Your task to perform on an android device: open the mobile data screen to see how much data has been used Image 0: 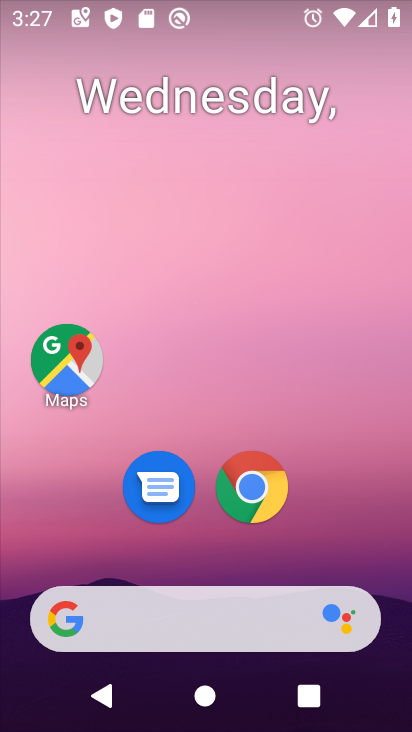
Step 0: drag from (366, 545) to (366, 205)
Your task to perform on an android device: open the mobile data screen to see how much data has been used Image 1: 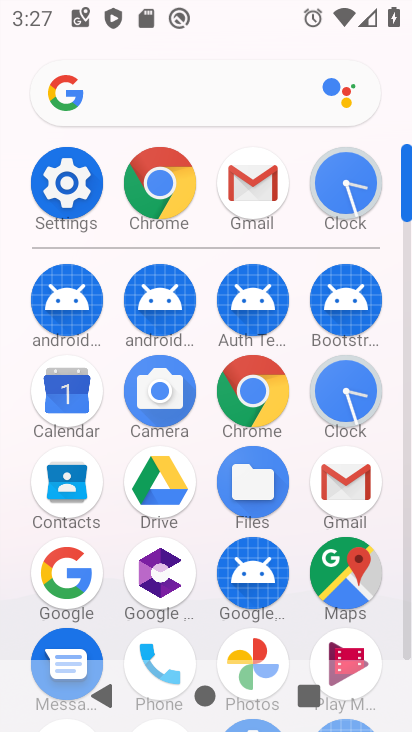
Step 1: click (76, 200)
Your task to perform on an android device: open the mobile data screen to see how much data has been used Image 2: 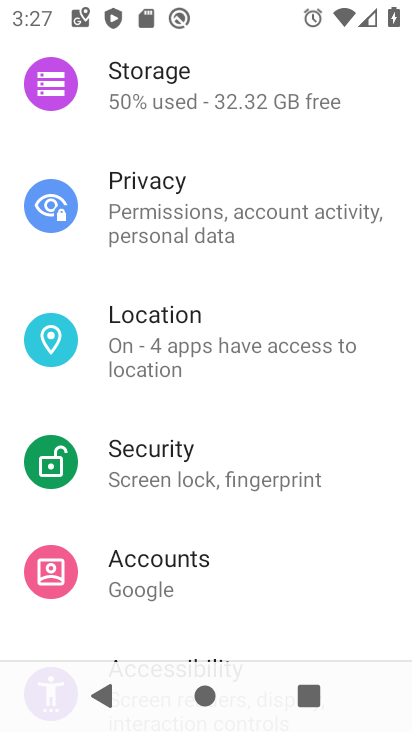
Step 2: drag from (377, 293) to (372, 369)
Your task to perform on an android device: open the mobile data screen to see how much data has been used Image 3: 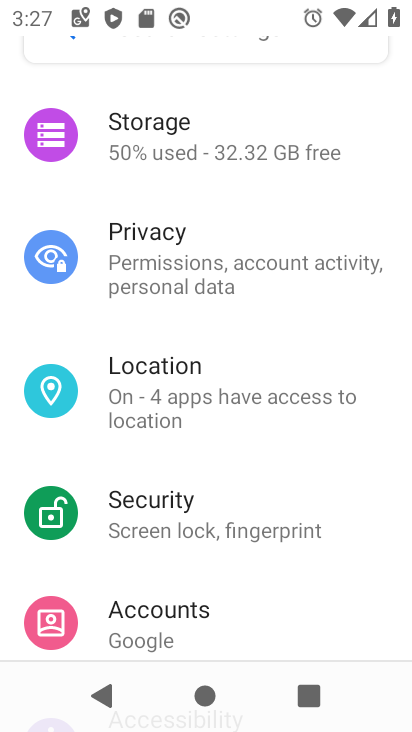
Step 3: drag from (367, 293) to (365, 368)
Your task to perform on an android device: open the mobile data screen to see how much data has been used Image 4: 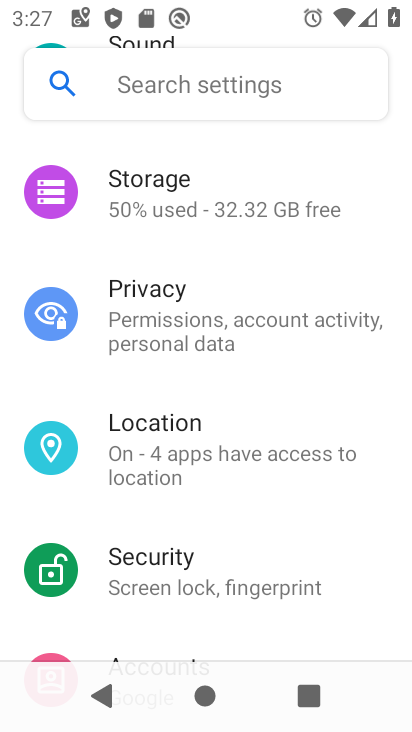
Step 4: drag from (365, 255) to (368, 347)
Your task to perform on an android device: open the mobile data screen to see how much data has been used Image 5: 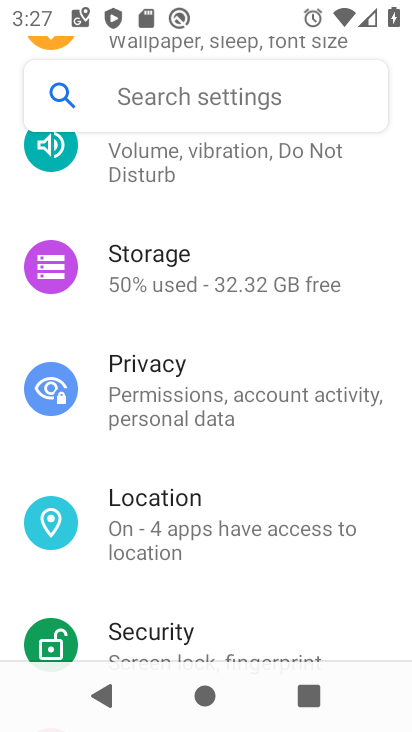
Step 5: drag from (367, 265) to (362, 345)
Your task to perform on an android device: open the mobile data screen to see how much data has been used Image 6: 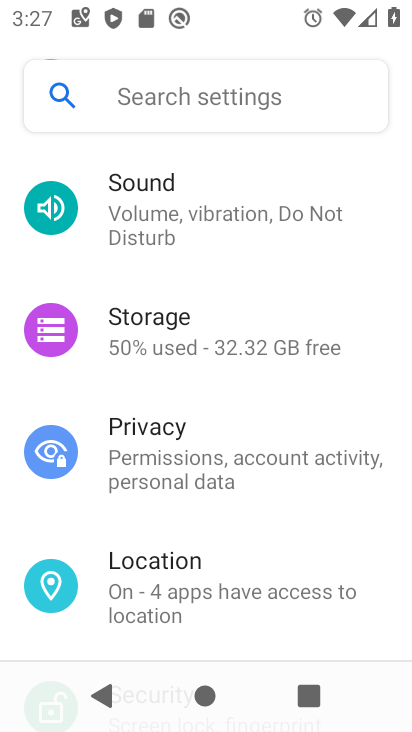
Step 6: drag from (362, 279) to (367, 360)
Your task to perform on an android device: open the mobile data screen to see how much data has been used Image 7: 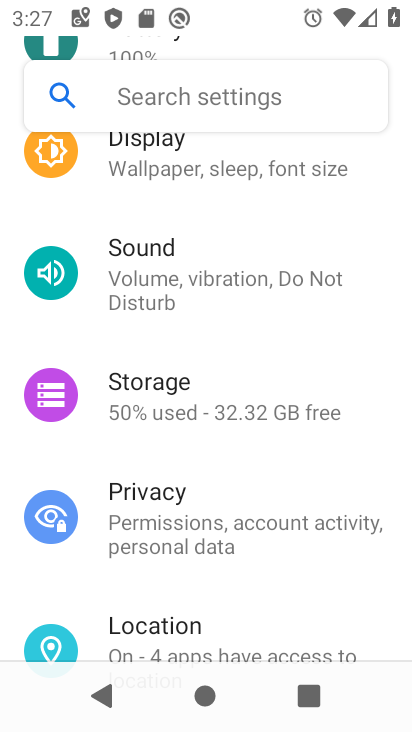
Step 7: drag from (362, 292) to (361, 366)
Your task to perform on an android device: open the mobile data screen to see how much data has been used Image 8: 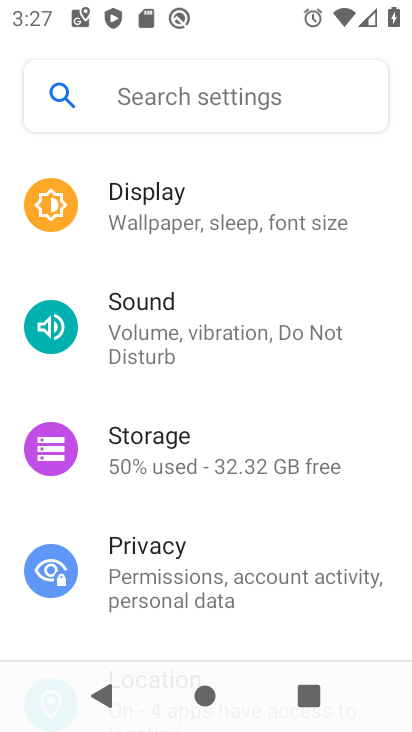
Step 8: drag from (364, 290) to (360, 370)
Your task to perform on an android device: open the mobile data screen to see how much data has been used Image 9: 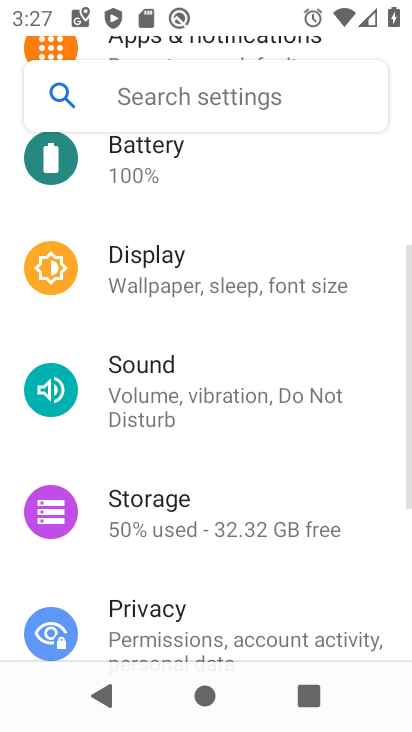
Step 9: drag from (358, 285) to (363, 377)
Your task to perform on an android device: open the mobile data screen to see how much data has been used Image 10: 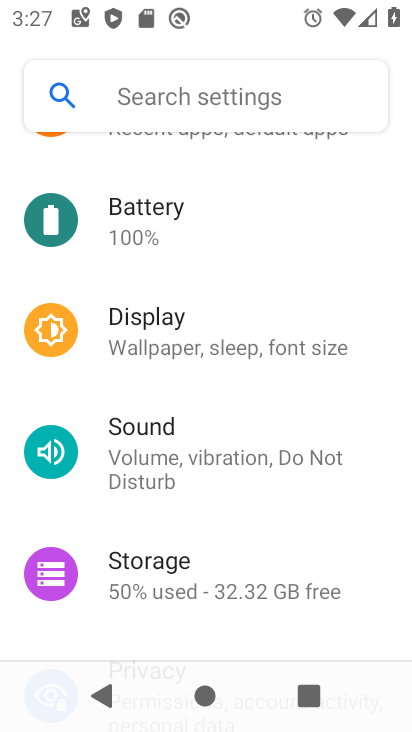
Step 10: drag from (372, 318) to (373, 404)
Your task to perform on an android device: open the mobile data screen to see how much data has been used Image 11: 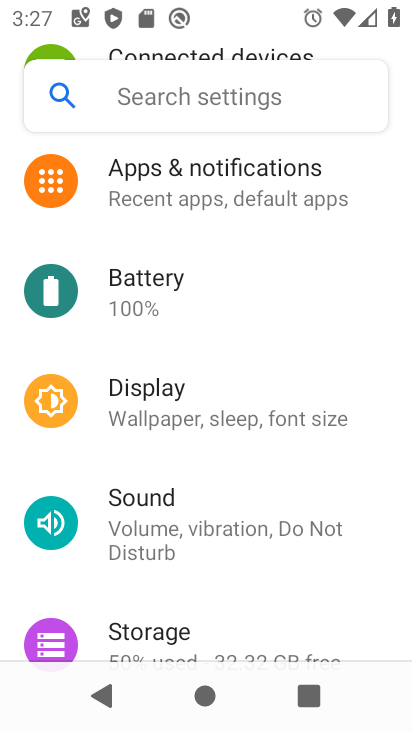
Step 11: drag from (361, 341) to (368, 444)
Your task to perform on an android device: open the mobile data screen to see how much data has been used Image 12: 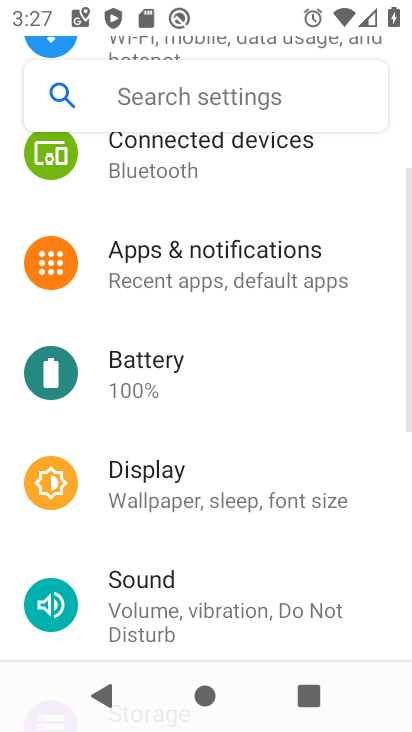
Step 12: drag from (354, 335) to (354, 420)
Your task to perform on an android device: open the mobile data screen to see how much data has been used Image 13: 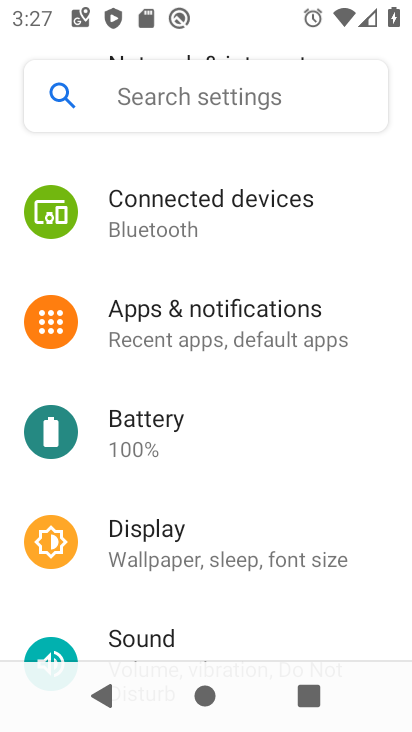
Step 13: drag from (358, 288) to (351, 406)
Your task to perform on an android device: open the mobile data screen to see how much data has been used Image 14: 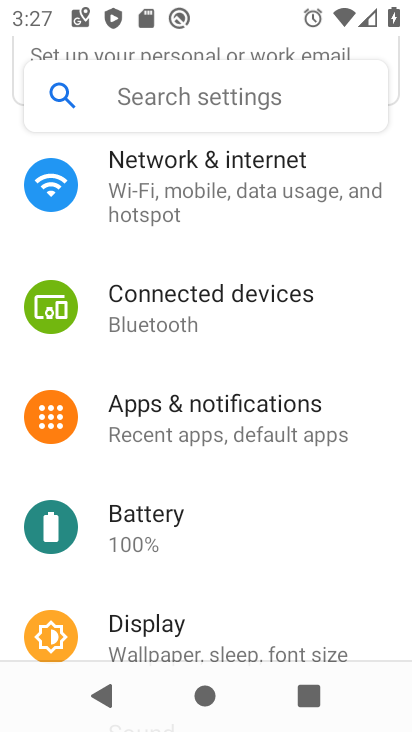
Step 14: drag from (366, 271) to (362, 404)
Your task to perform on an android device: open the mobile data screen to see how much data has been used Image 15: 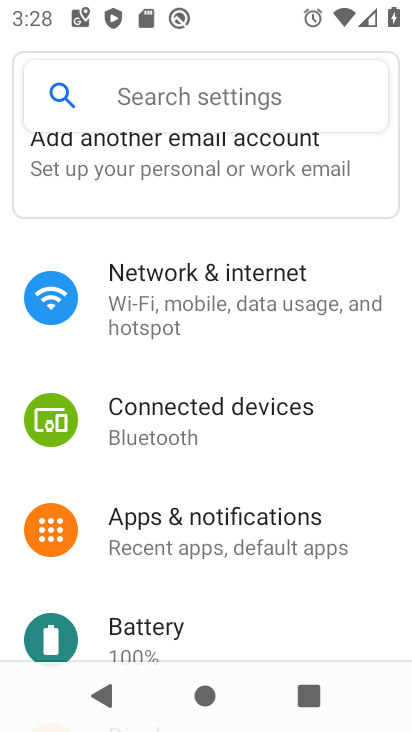
Step 15: drag from (367, 278) to (370, 413)
Your task to perform on an android device: open the mobile data screen to see how much data has been used Image 16: 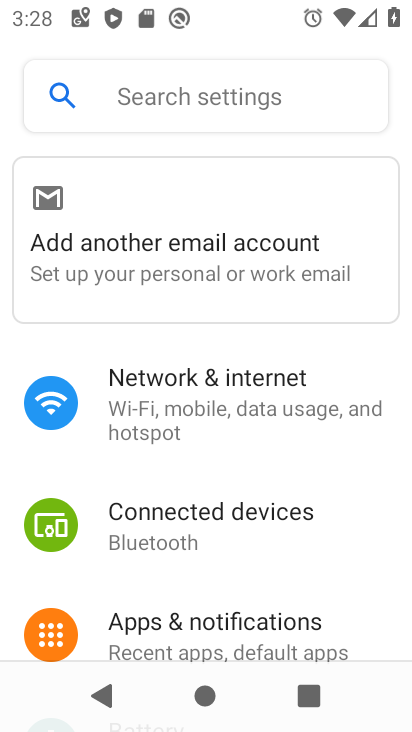
Step 16: drag from (343, 482) to (341, 381)
Your task to perform on an android device: open the mobile data screen to see how much data has been used Image 17: 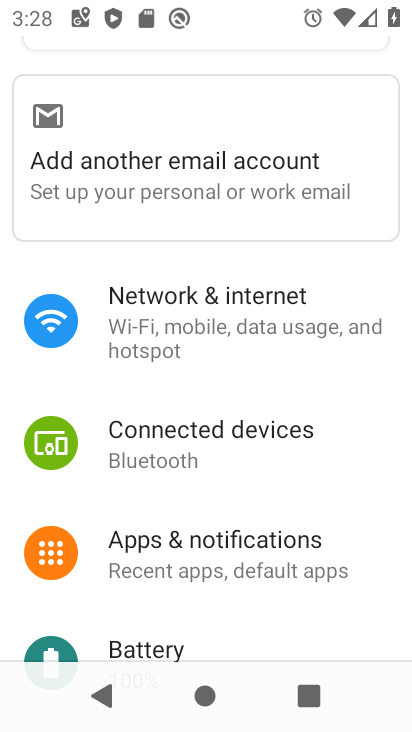
Step 17: drag from (342, 499) to (337, 404)
Your task to perform on an android device: open the mobile data screen to see how much data has been used Image 18: 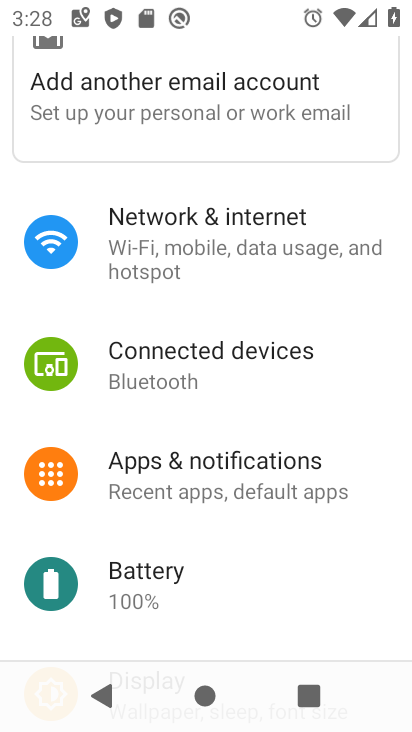
Step 18: drag from (322, 539) to (319, 452)
Your task to perform on an android device: open the mobile data screen to see how much data has been used Image 19: 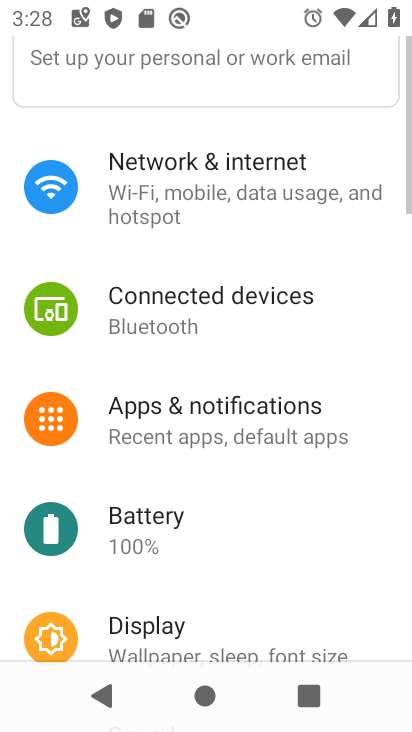
Step 19: drag from (359, 257) to (348, 397)
Your task to perform on an android device: open the mobile data screen to see how much data has been used Image 20: 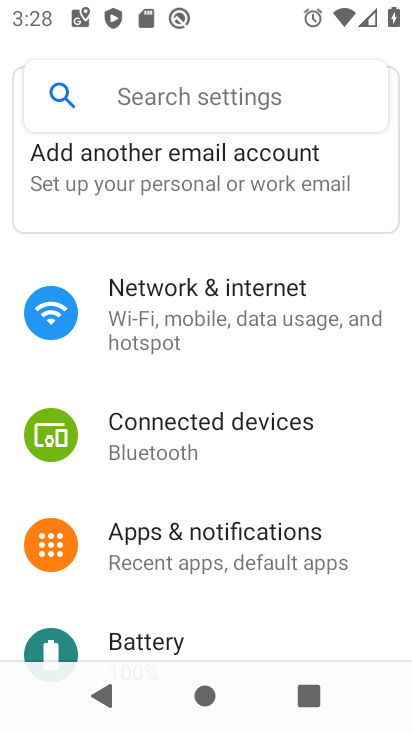
Step 20: click (254, 310)
Your task to perform on an android device: open the mobile data screen to see how much data has been used Image 21: 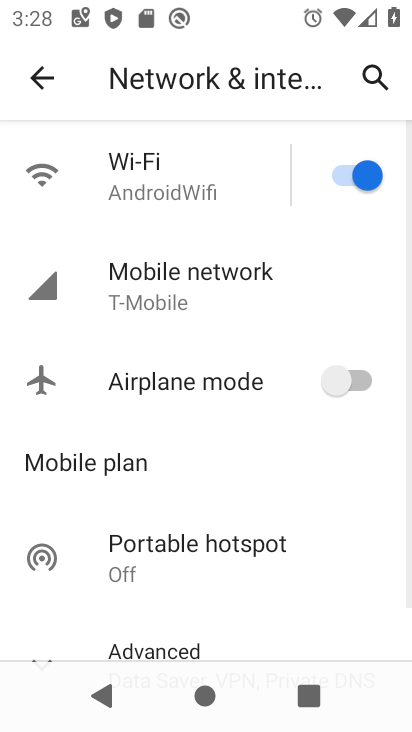
Step 21: click (215, 292)
Your task to perform on an android device: open the mobile data screen to see how much data has been used Image 22: 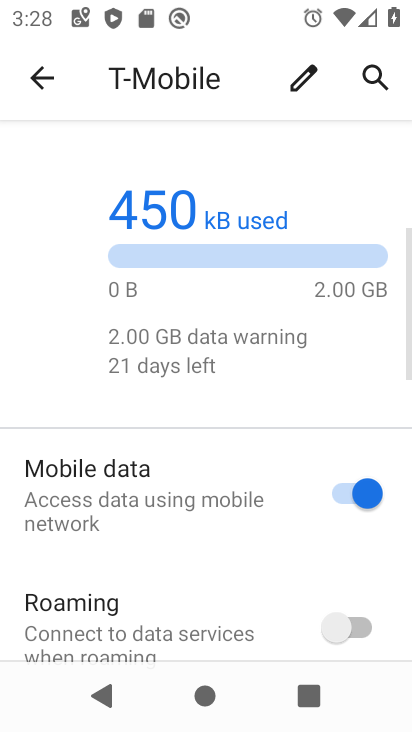
Step 22: drag from (243, 510) to (255, 416)
Your task to perform on an android device: open the mobile data screen to see how much data has been used Image 23: 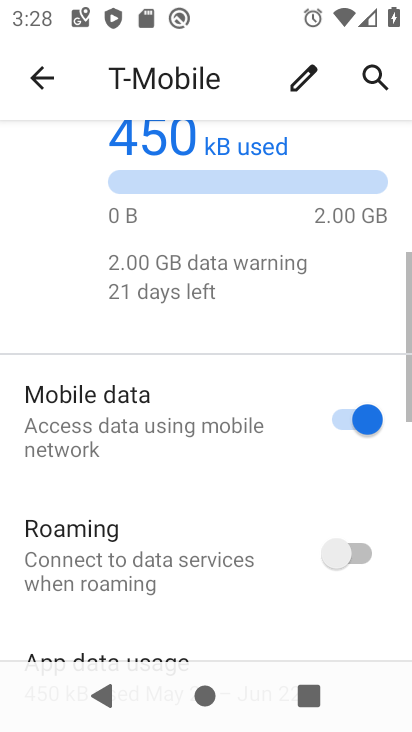
Step 23: drag from (264, 511) to (273, 389)
Your task to perform on an android device: open the mobile data screen to see how much data has been used Image 24: 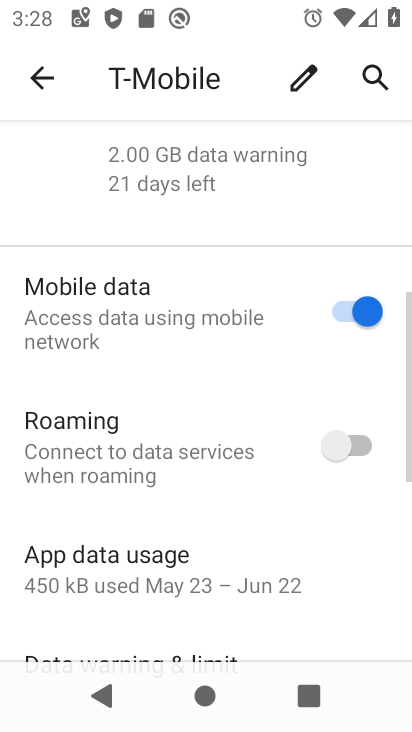
Step 24: drag from (250, 497) to (268, 401)
Your task to perform on an android device: open the mobile data screen to see how much data has been used Image 25: 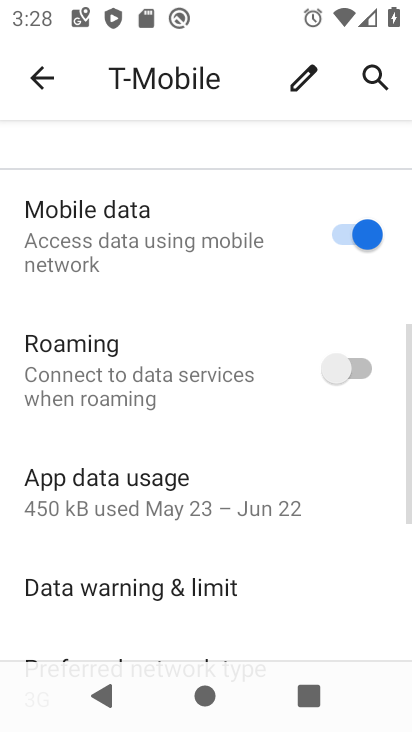
Step 25: click (253, 506)
Your task to perform on an android device: open the mobile data screen to see how much data has been used Image 26: 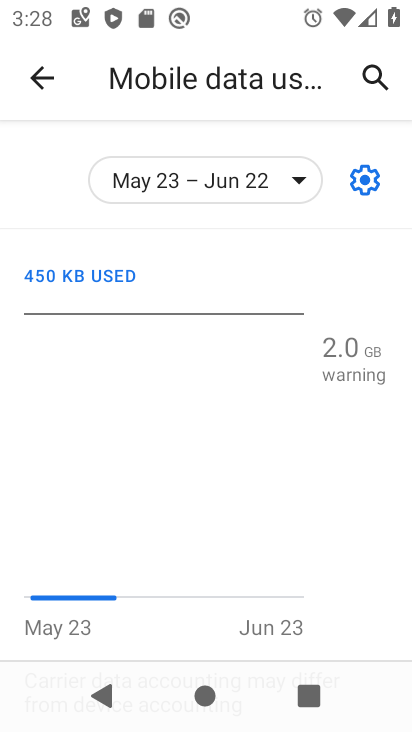
Step 26: task complete